Your task to perform on an android device: turn notification dots off Image 0: 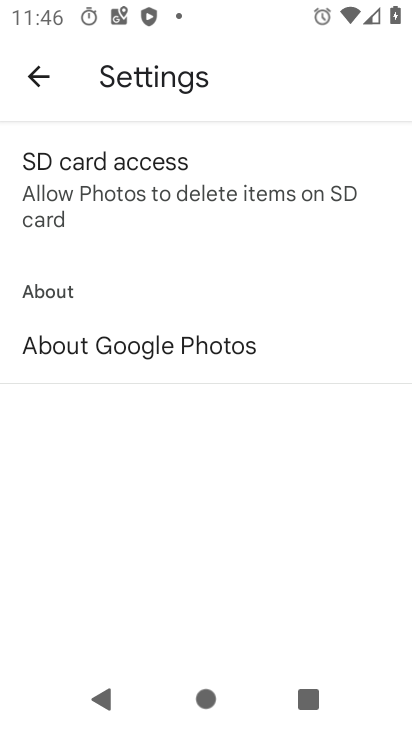
Step 0: press home button
Your task to perform on an android device: turn notification dots off Image 1: 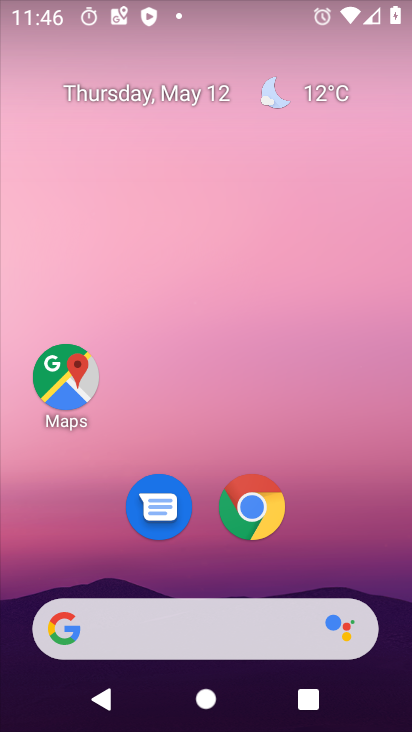
Step 1: drag from (190, 505) to (209, 8)
Your task to perform on an android device: turn notification dots off Image 2: 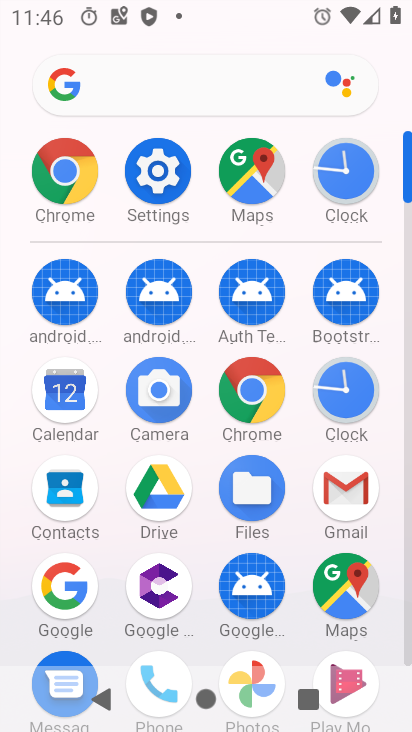
Step 2: click (169, 178)
Your task to perform on an android device: turn notification dots off Image 3: 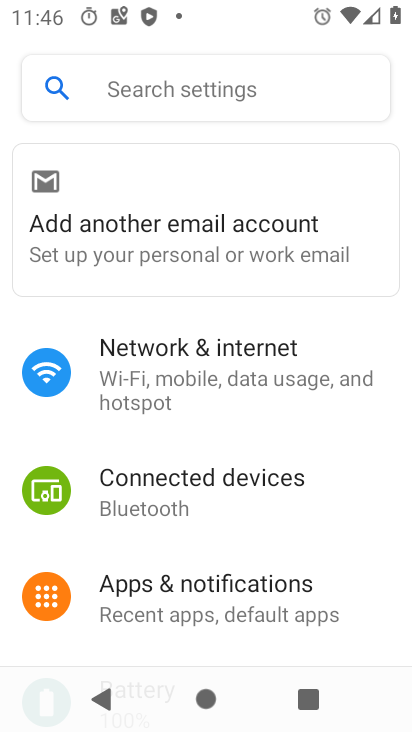
Step 3: click (217, 601)
Your task to perform on an android device: turn notification dots off Image 4: 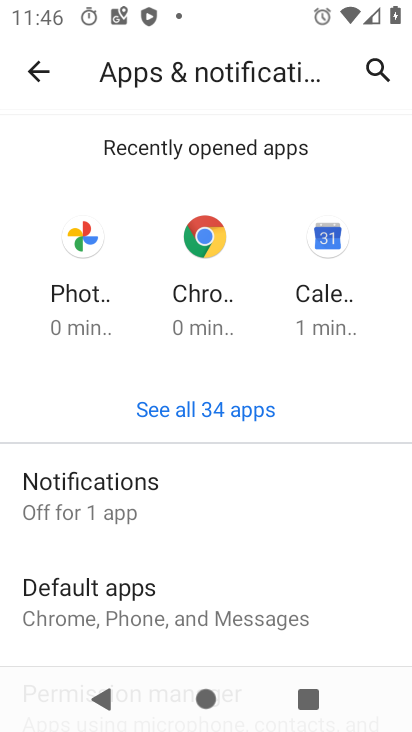
Step 4: drag from (211, 563) to (195, 222)
Your task to perform on an android device: turn notification dots off Image 5: 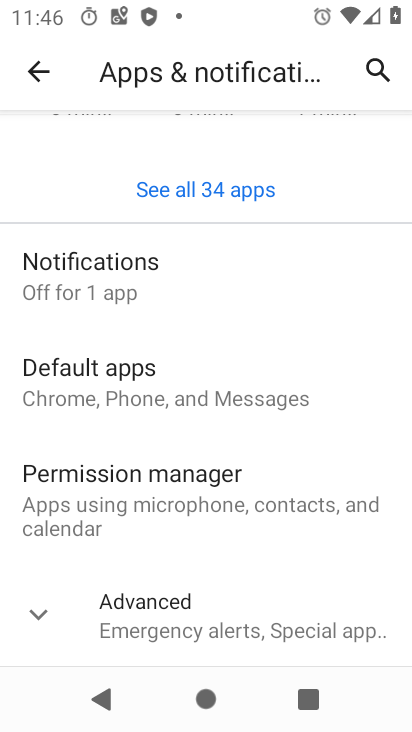
Step 5: click (75, 263)
Your task to perform on an android device: turn notification dots off Image 6: 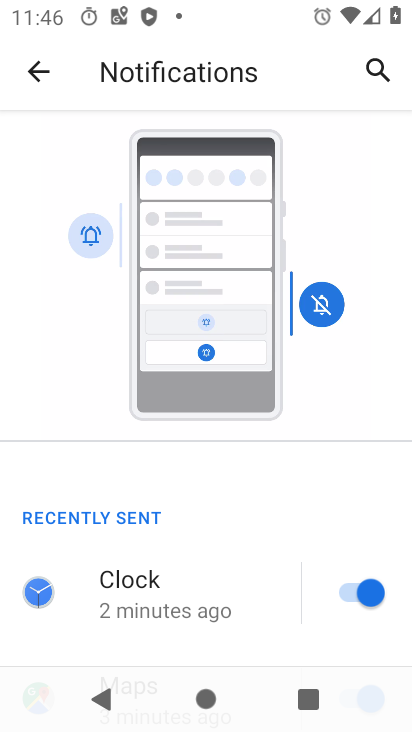
Step 6: drag from (128, 540) to (171, 238)
Your task to perform on an android device: turn notification dots off Image 7: 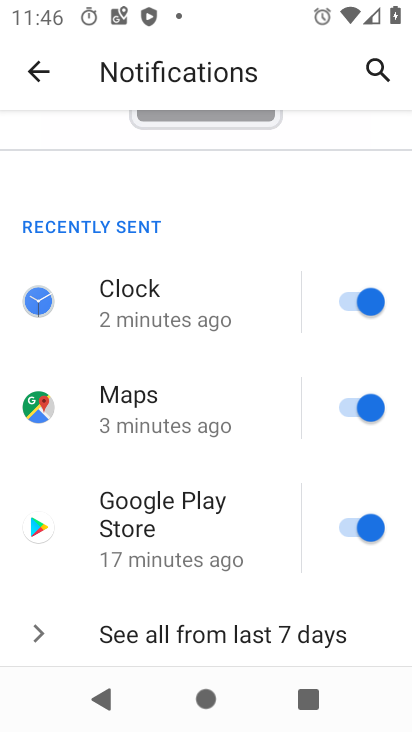
Step 7: drag from (201, 391) to (211, 318)
Your task to perform on an android device: turn notification dots off Image 8: 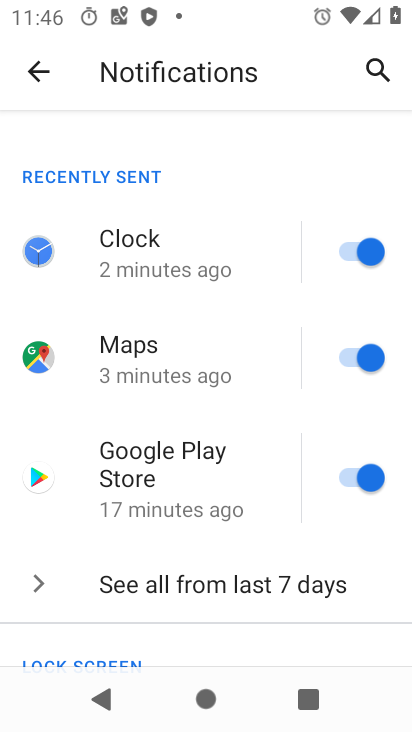
Step 8: drag from (215, 601) to (238, 171)
Your task to perform on an android device: turn notification dots off Image 9: 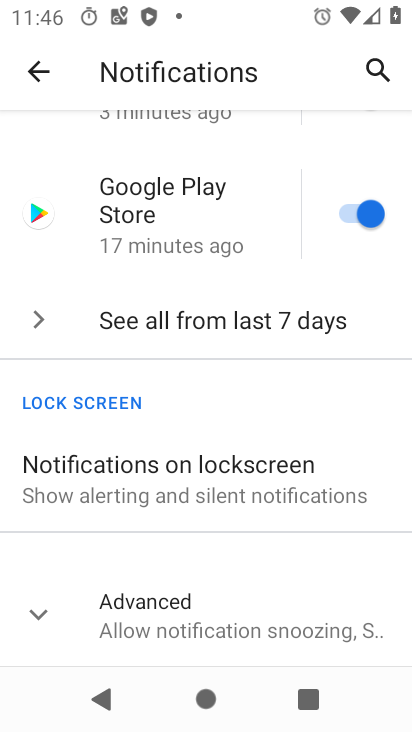
Step 9: click (174, 616)
Your task to perform on an android device: turn notification dots off Image 10: 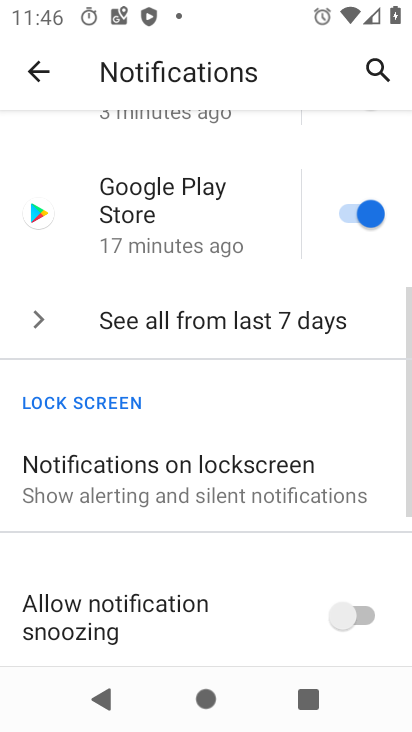
Step 10: drag from (176, 560) to (196, 251)
Your task to perform on an android device: turn notification dots off Image 11: 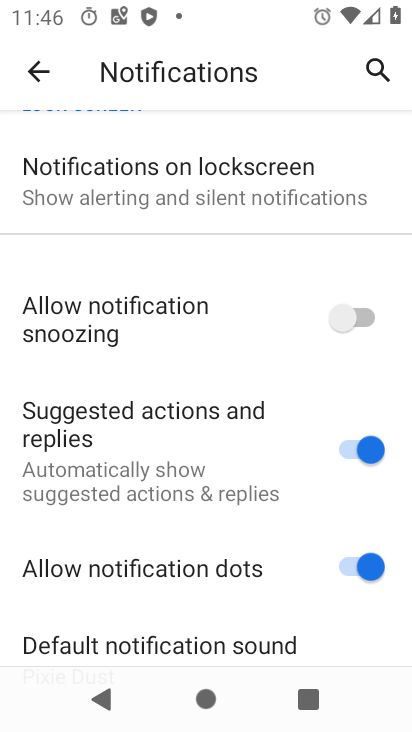
Step 11: click (339, 567)
Your task to perform on an android device: turn notification dots off Image 12: 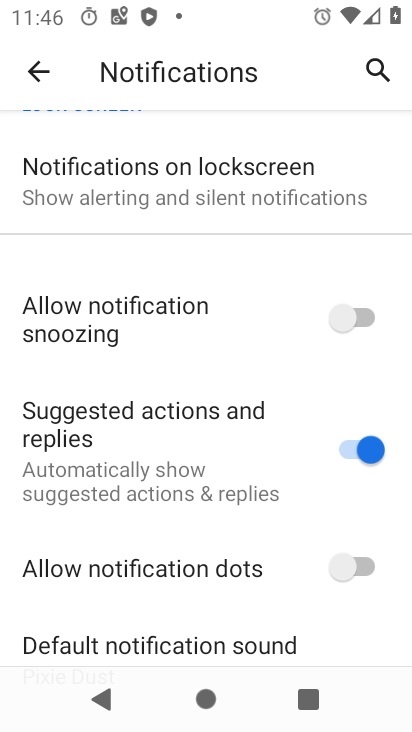
Step 12: task complete